Your task to perform on an android device: Search for sushi restaurants on Maps Image 0: 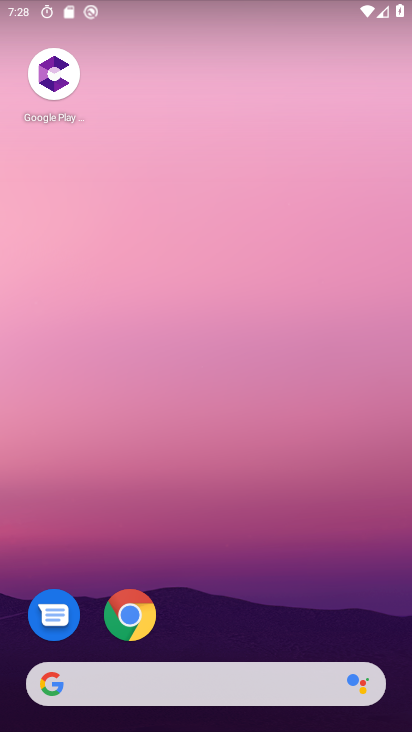
Step 0: drag from (190, 652) to (320, 192)
Your task to perform on an android device: Search for sushi restaurants on Maps Image 1: 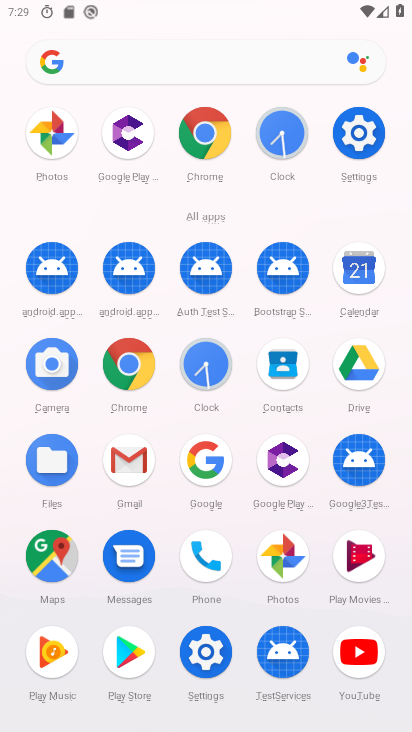
Step 1: click (53, 568)
Your task to perform on an android device: Search for sushi restaurants on Maps Image 2: 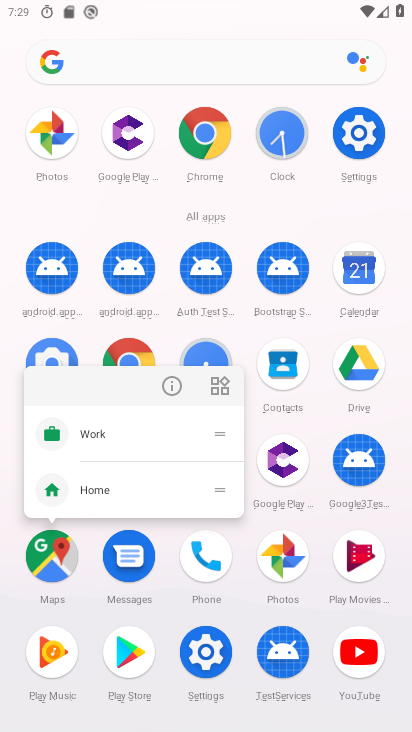
Step 2: click (53, 568)
Your task to perform on an android device: Search for sushi restaurants on Maps Image 3: 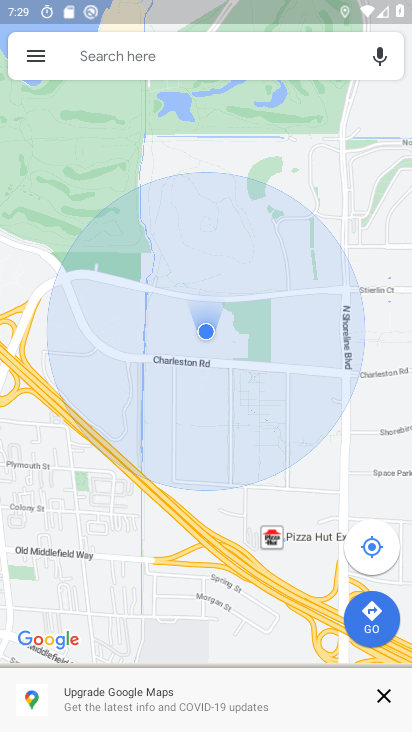
Step 3: click (92, 57)
Your task to perform on an android device: Search for sushi restaurants on Maps Image 4: 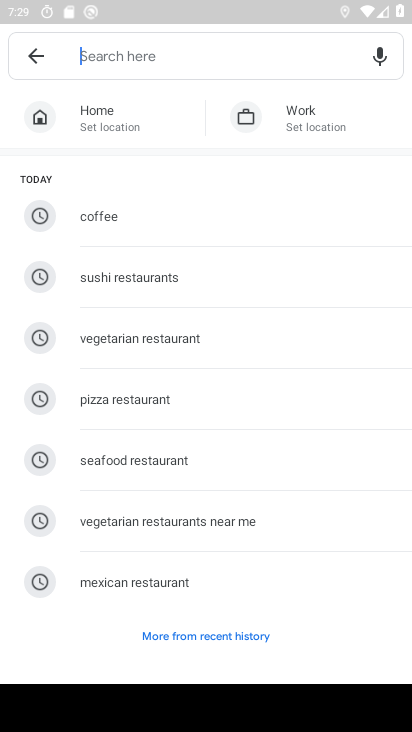
Step 4: click (128, 279)
Your task to perform on an android device: Search for sushi restaurants on Maps Image 5: 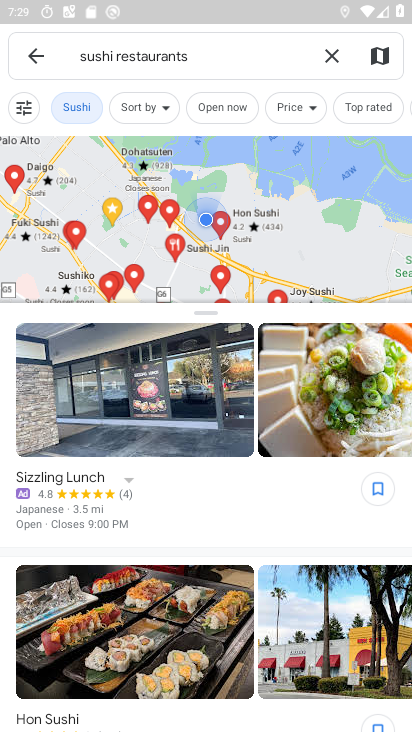
Step 5: task complete